Your task to perform on an android device: Open Chrome and go to settings Image 0: 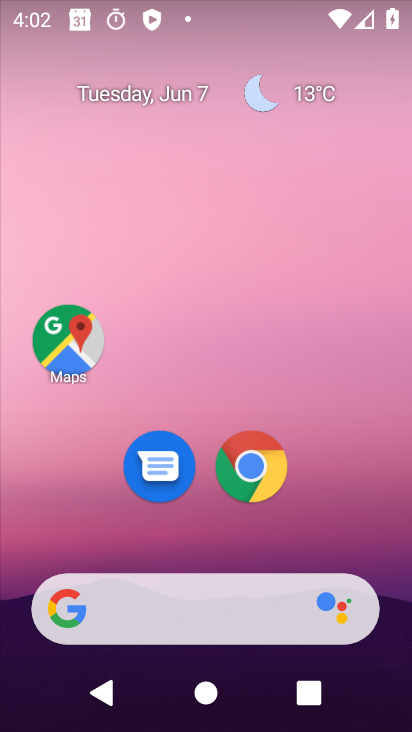
Step 0: drag from (398, 576) to (311, 214)
Your task to perform on an android device: Open Chrome and go to settings Image 1: 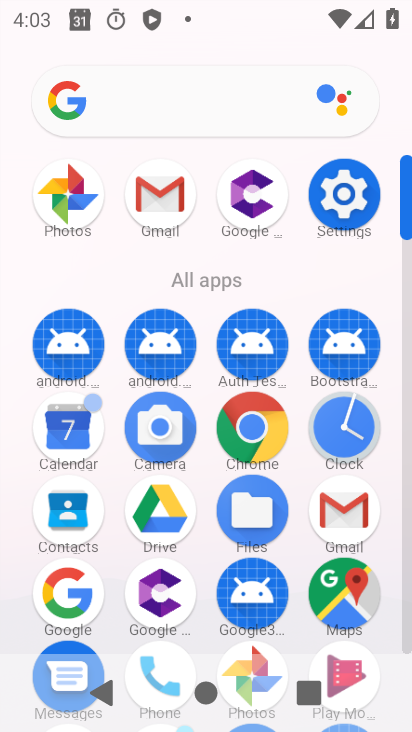
Step 1: click (270, 434)
Your task to perform on an android device: Open Chrome and go to settings Image 2: 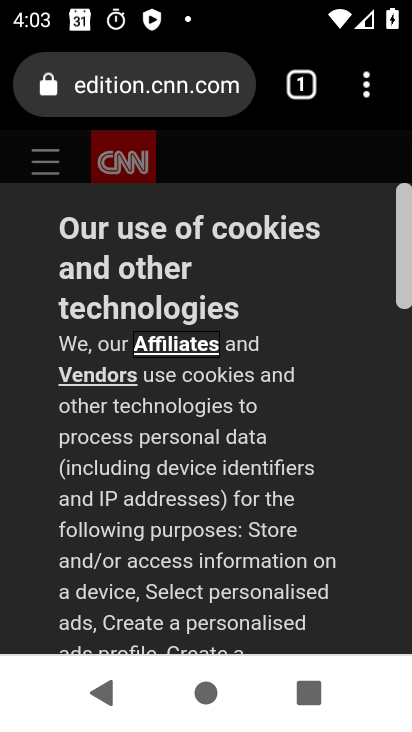
Step 2: click (371, 103)
Your task to perform on an android device: Open Chrome and go to settings Image 3: 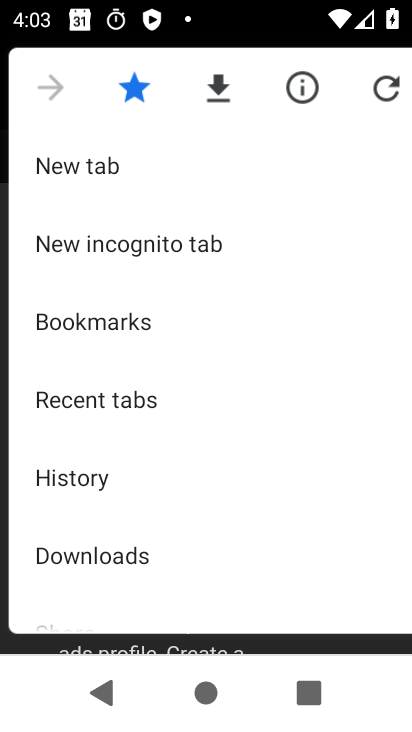
Step 3: drag from (201, 593) to (166, 185)
Your task to perform on an android device: Open Chrome and go to settings Image 4: 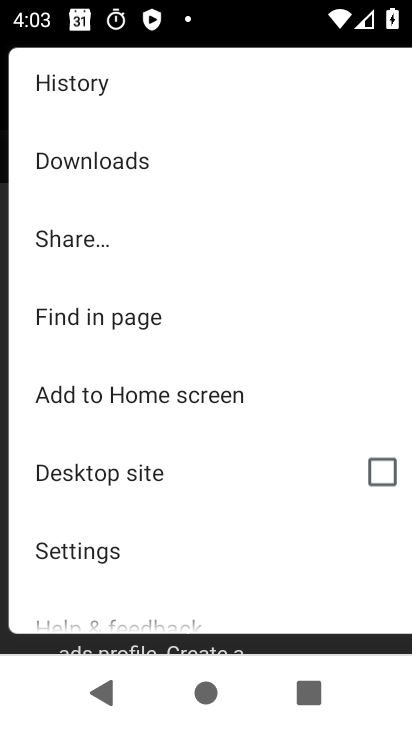
Step 4: click (180, 558)
Your task to perform on an android device: Open Chrome and go to settings Image 5: 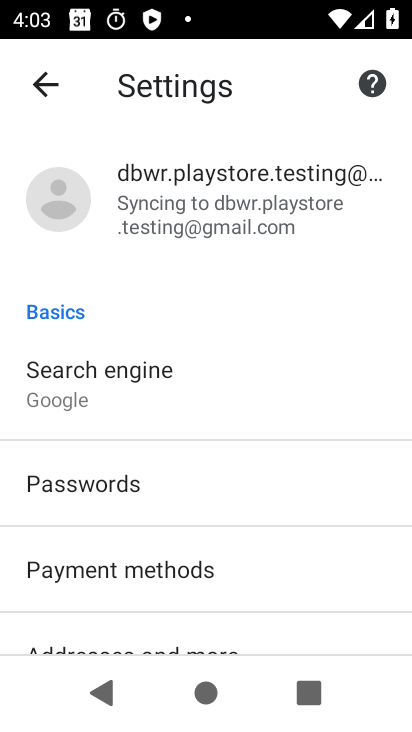
Step 5: task complete